Your task to perform on an android device: What's on my calendar tomorrow? Image 0: 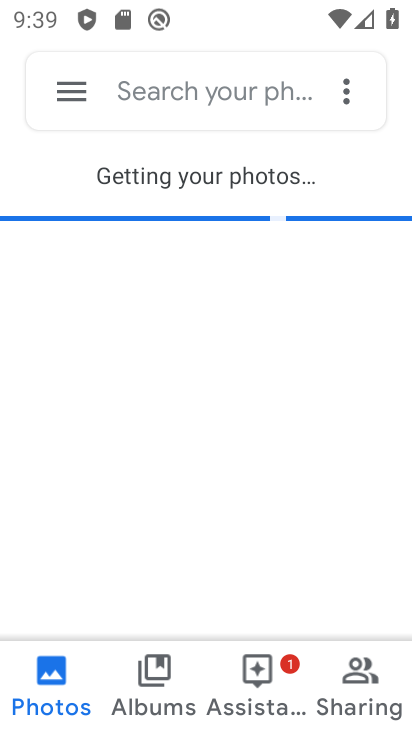
Step 0: press home button
Your task to perform on an android device: What's on my calendar tomorrow? Image 1: 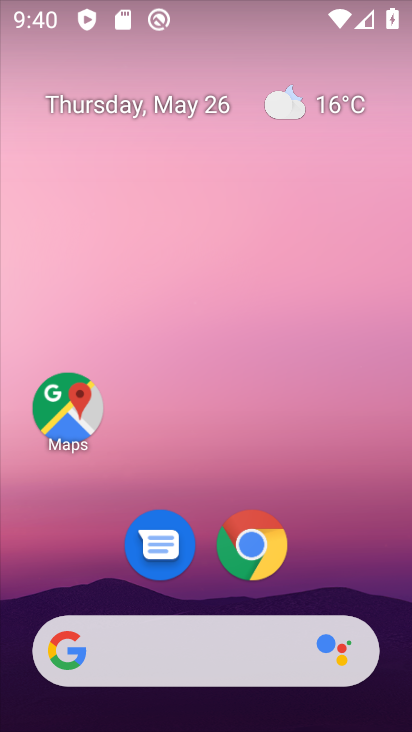
Step 1: drag from (342, 524) to (291, 96)
Your task to perform on an android device: What's on my calendar tomorrow? Image 2: 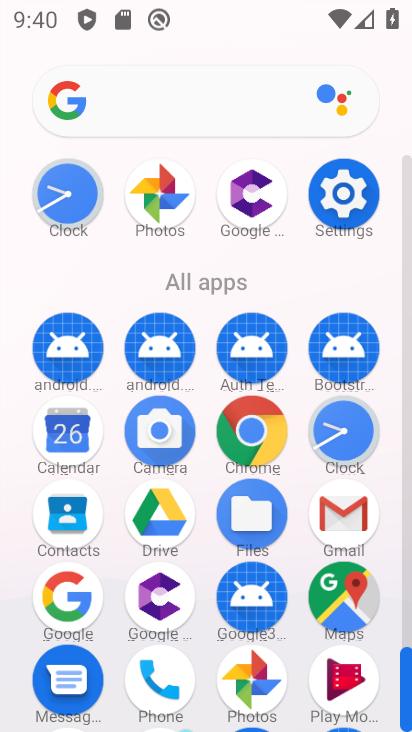
Step 2: click (76, 426)
Your task to perform on an android device: What's on my calendar tomorrow? Image 3: 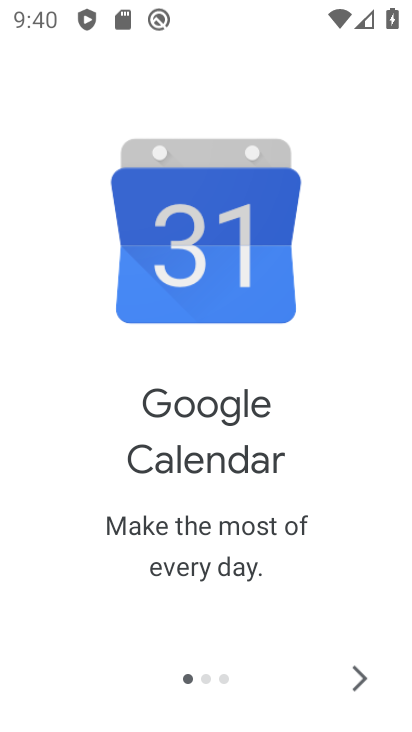
Step 3: click (377, 679)
Your task to perform on an android device: What's on my calendar tomorrow? Image 4: 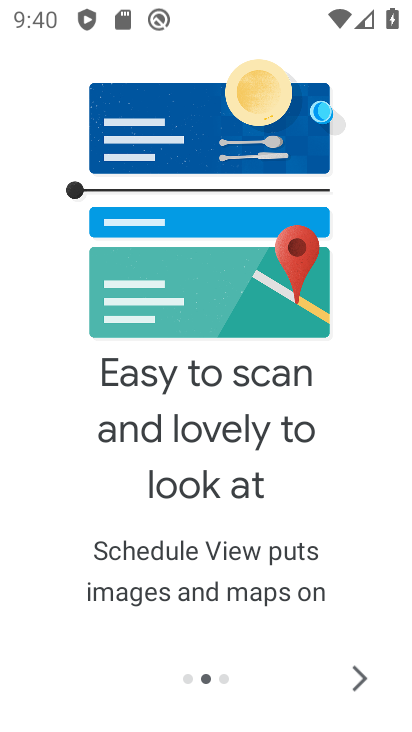
Step 4: click (377, 679)
Your task to perform on an android device: What's on my calendar tomorrow? Image 5: 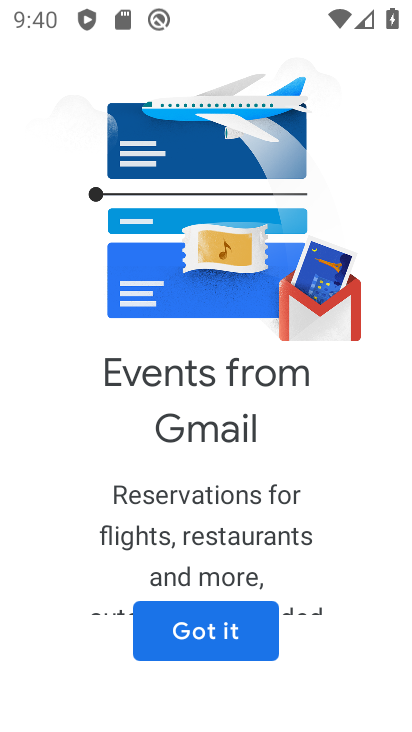
Step 5: click (200, 649)
Your task to perform on an android device: What's on my calendar tomorrow? Image 6: 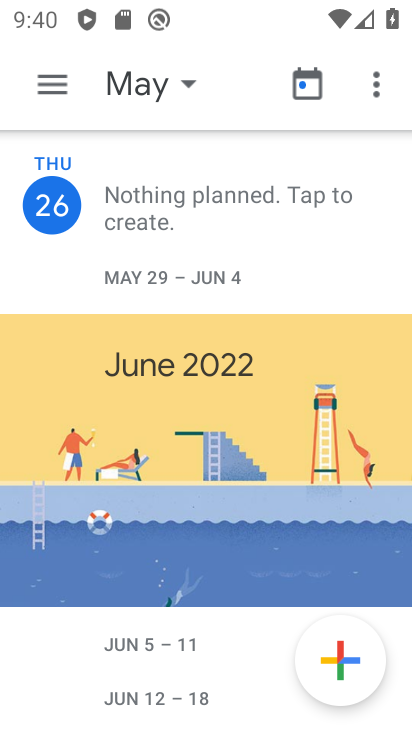
Step 6: click (147, 87)
Your task to perform on an android device: What's on my calendar tomorrow? Image 7: 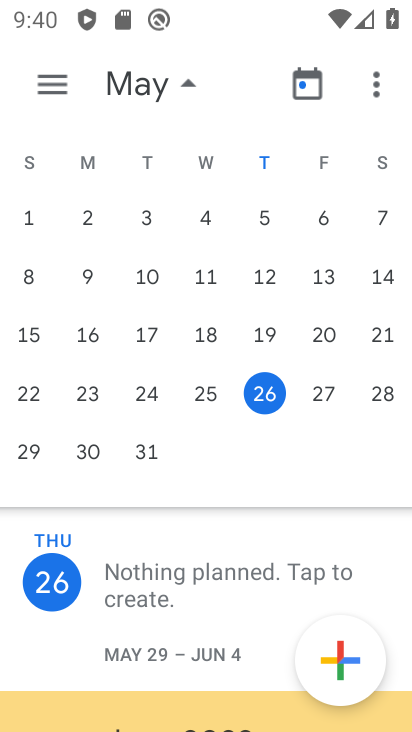
Step 7: click (322, 398)
Your task to perform on an android device: What's on my calendar tomorrow? Image 8: 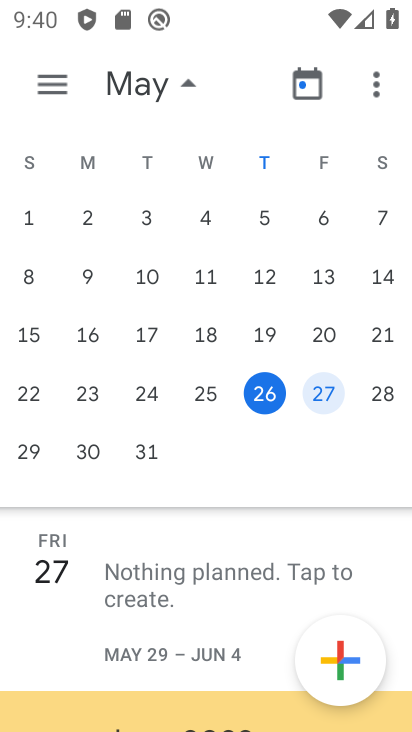
Step 8: task complete